Your task to perform on an android device: Open Google Chrome Image 0: 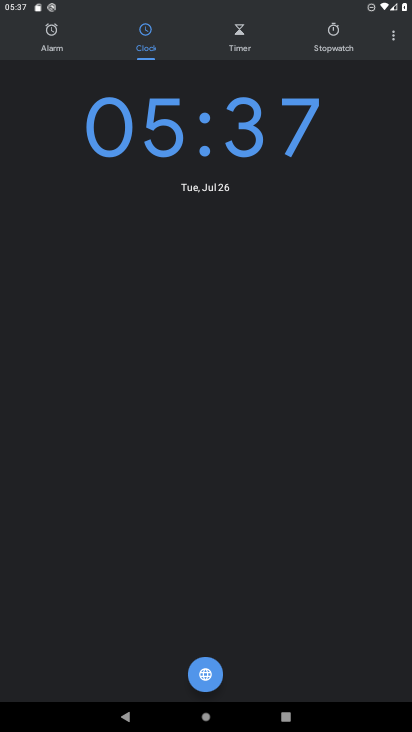
Step 0: press home button
Your task to perform on an android device: Open Google Chrome Image 1: 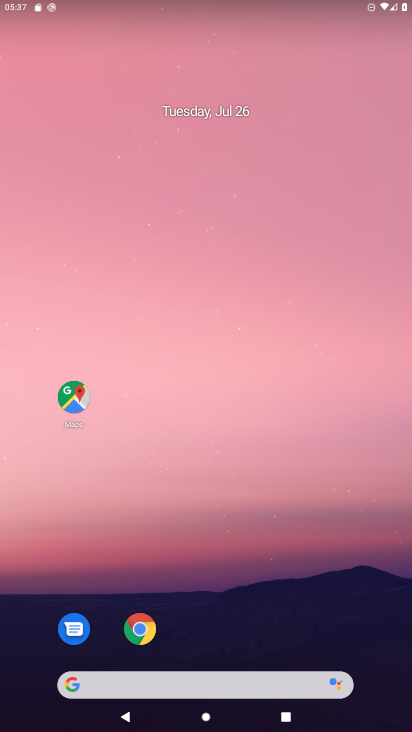
Step 1: click (139, 633)
Your task to perform on an android device: Open Google Chrome Image 2: 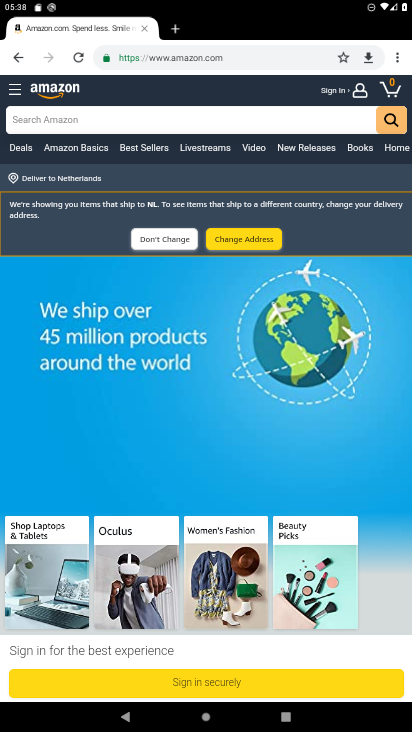
Step 2: task complete